Your task to perform on an android device: Go to privacy settings Image 0: 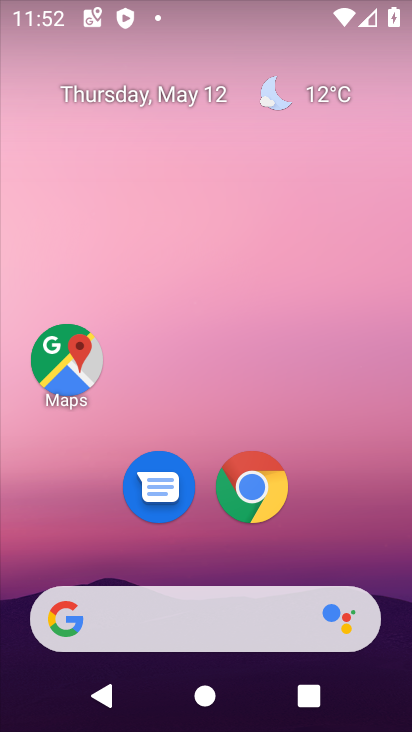
Step 0: press home button
Your task to perform on an android device: Go to privacy settings Image 1: 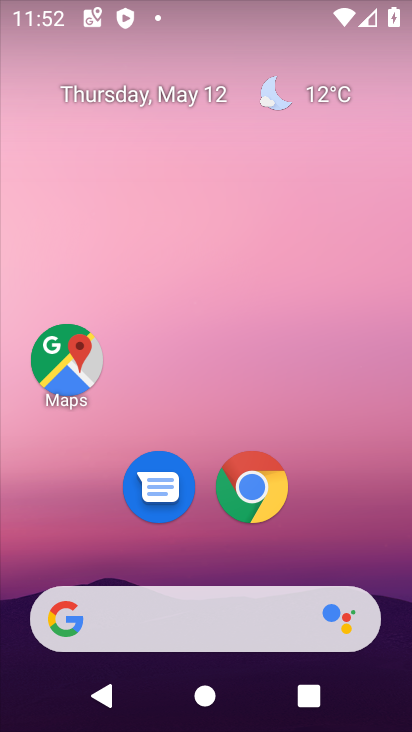
Step 1: drag from (360, 563) to (356, 6)
Your task to perform on an android device: Go to privacy settings Image 2: 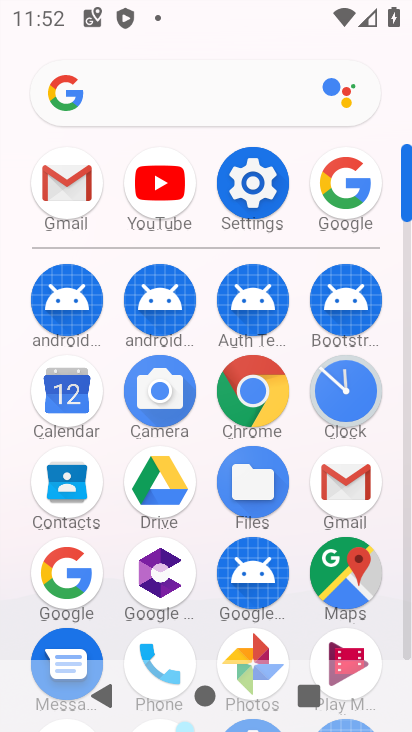
Step 2: click (251, 188)
Your task to perform on an android device: Go to privacy settings Image 3: 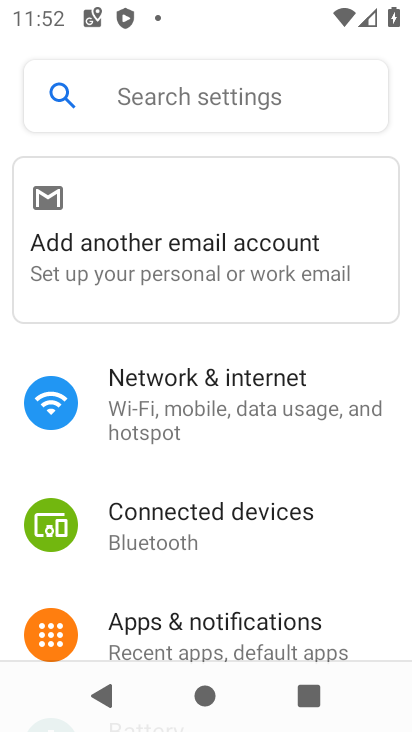
Step 3: drag from (340, 514) to (338, 79)
Your task to perform on an android device: Go to privacy settings Image 4: 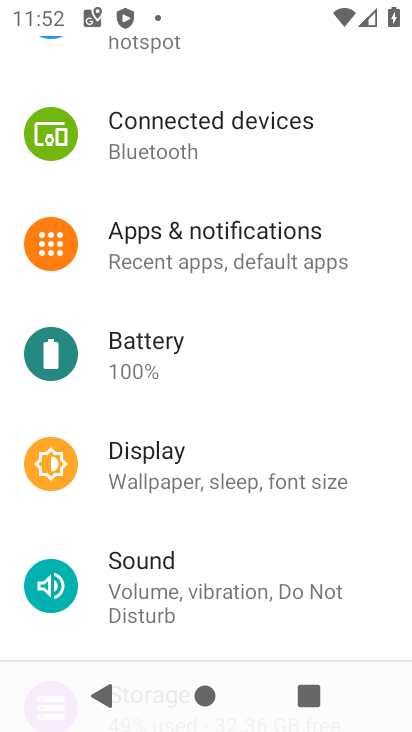
Step 4: drag from (292, 443) to (294, 97)
Your task to perform on an android device: Go to privacy settings Image 5: 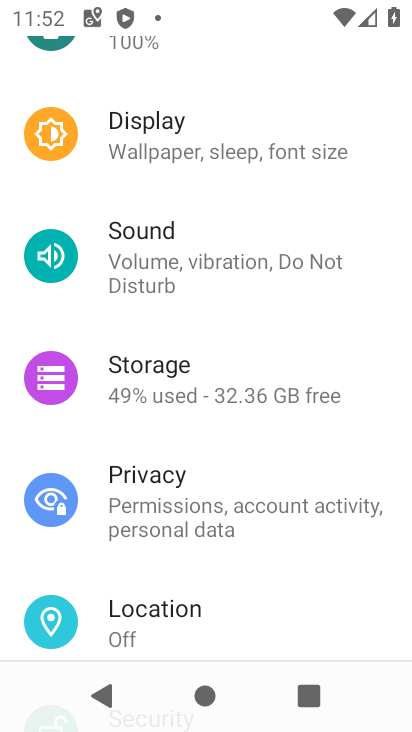
Step 5: click (150, 497)
Your task to perform on an android device: Go to privacy settings Image 6: 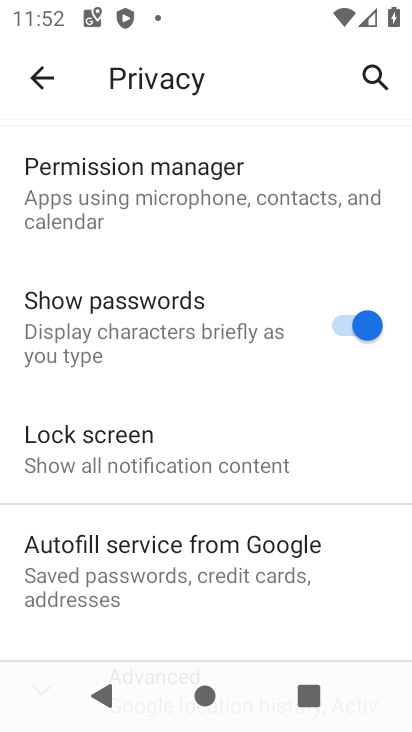
Step 6: task complete